Your task to perform on an android device: turn off sleep mode Image 0: 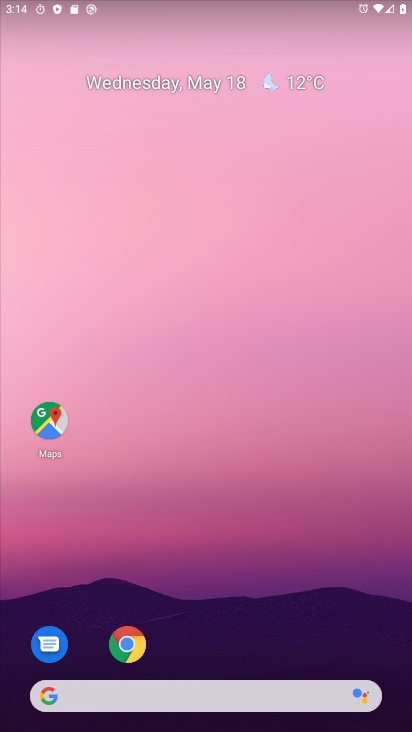
Step 0: drag from (362, 475) to (365, 280)
Your task to perform on an android device: turn off sleep mode Image 1: 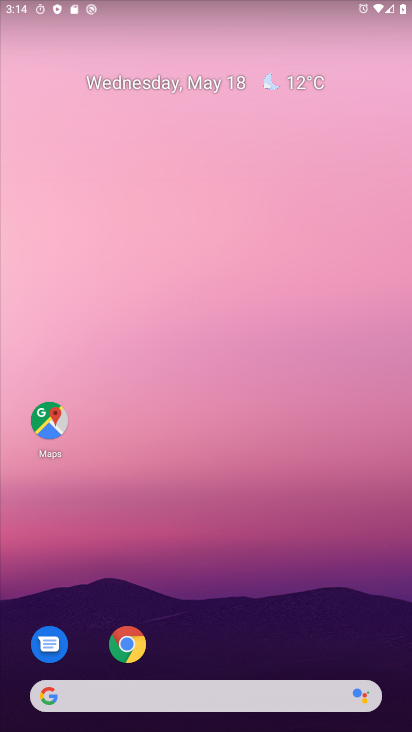
Step 1: drag from (395, 670) to (287, 87)
Your task to perform on an android device: turn off sleep mode Image 2: 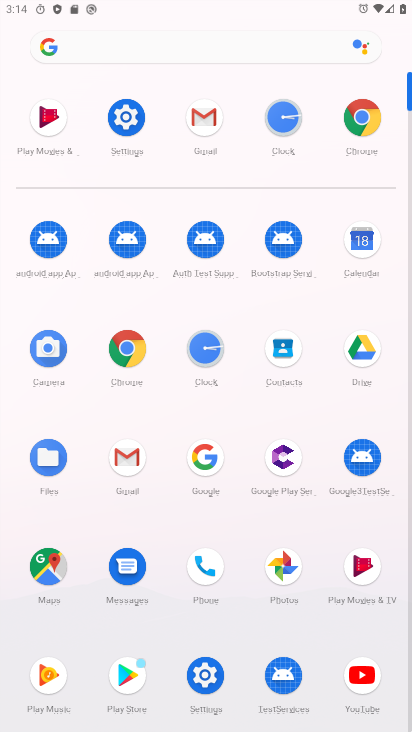
Step 2: click (128, 120)
Your task to perform on an android device: turn off sleep mode Image 3: 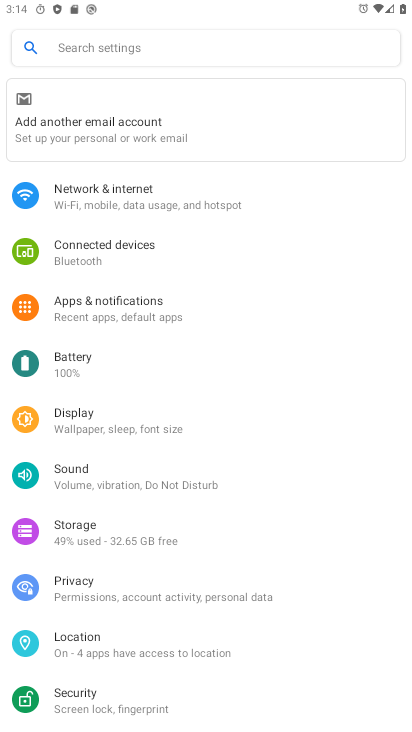
Step 3: click (77, 412)
Your task to perform on an android device: turn off sleep mode Image 4: 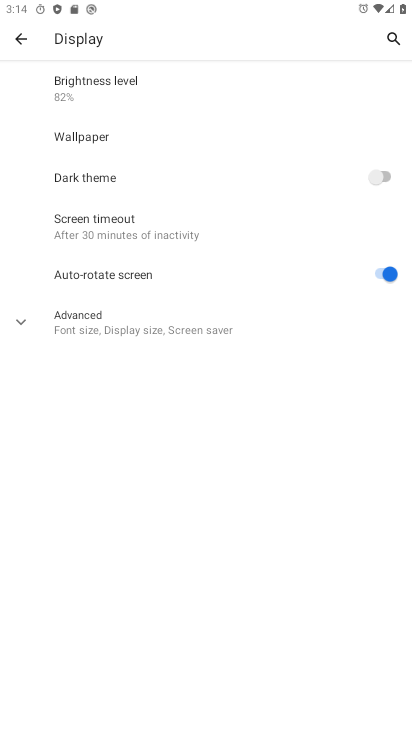
Step 4: click (117, 224)
Your task to perform on an android device: turn off sleep mode Image 5: 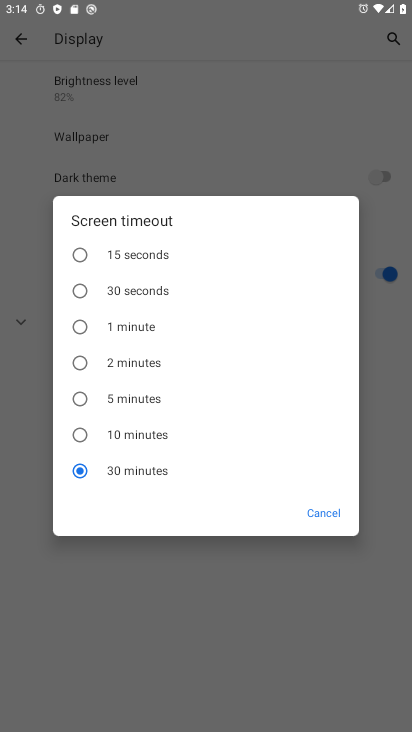
Step 5: task complete